Your task to perform on an android device: Is it going to rain this weekend? Image 0: 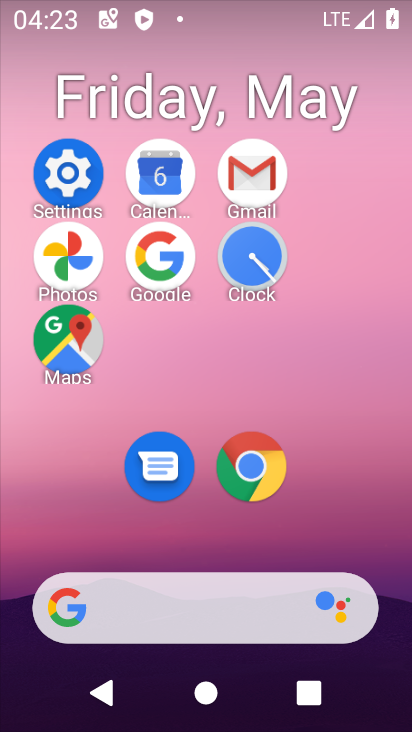
Step 0: click (143, 266)
Your task to perform on an android device: Is it going to rain this weekend? Image 1: 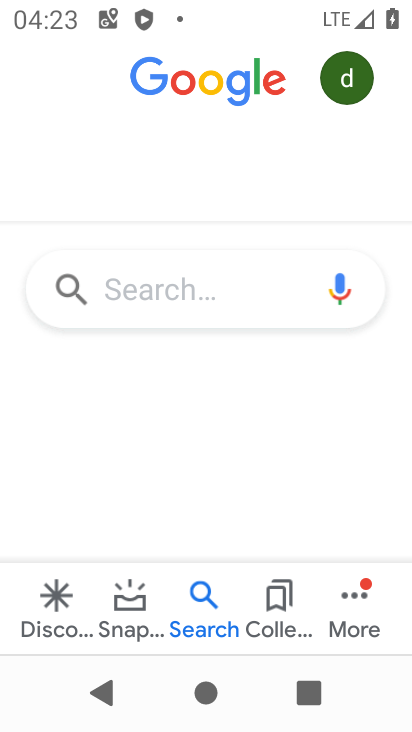
Step 1: click (170, 281)
Your task to perform on an android device: Is it going to rain this weekend? Image 2: 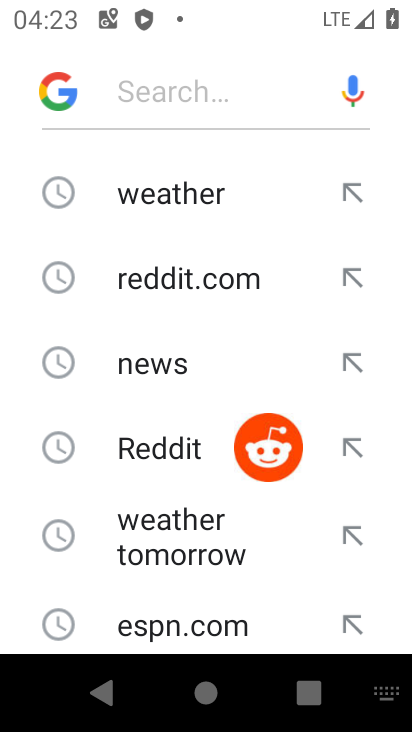
Step 2: click (152, 172)
Your task to perform on an android device: Is it going to rain this weekend? Image 3: 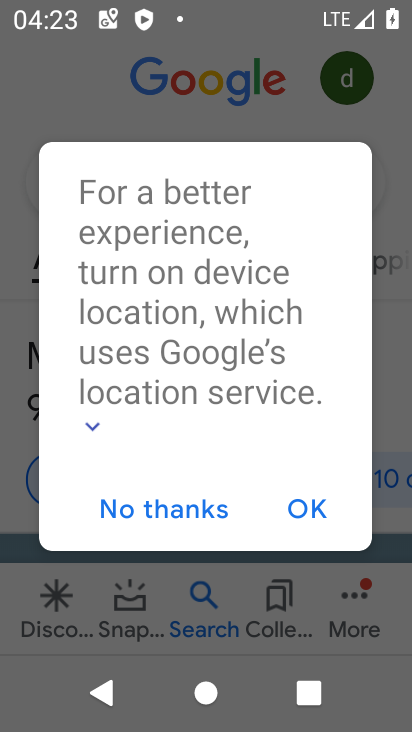
Step 3: click (273, 482)
Your task to perform on an android device: Is it going to rain this weekend? Image 4: 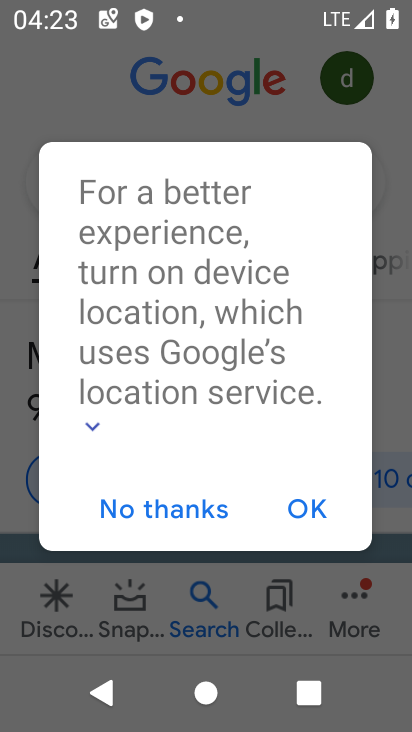
Step 4: click (297, 504)
Your task to perform on an android device: Is it going to rain this weekend? Image 5: 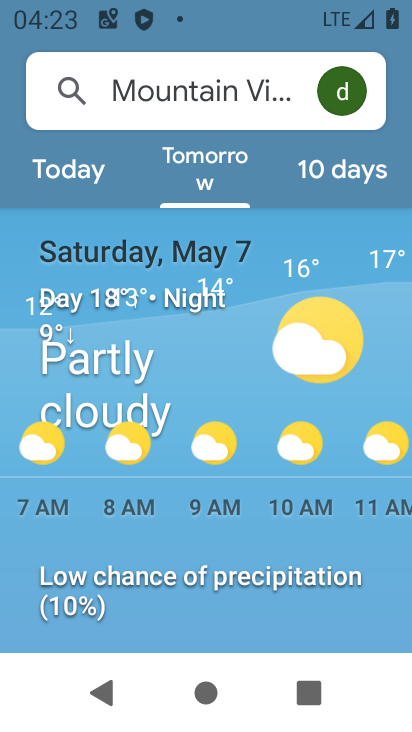
Step 5: click (302, 148)
Your task to perform on an android device: Is it going to rain this weekend? Image 6: 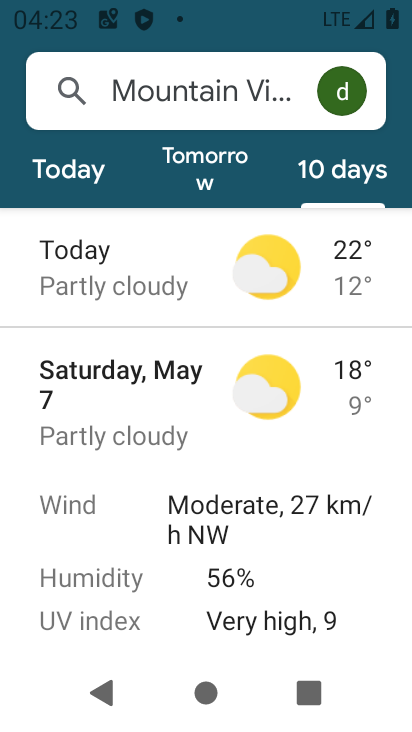
Step 6: click (170, 364)
Your task to perform on an android device: Is it going to rain this weekend? Image 7: 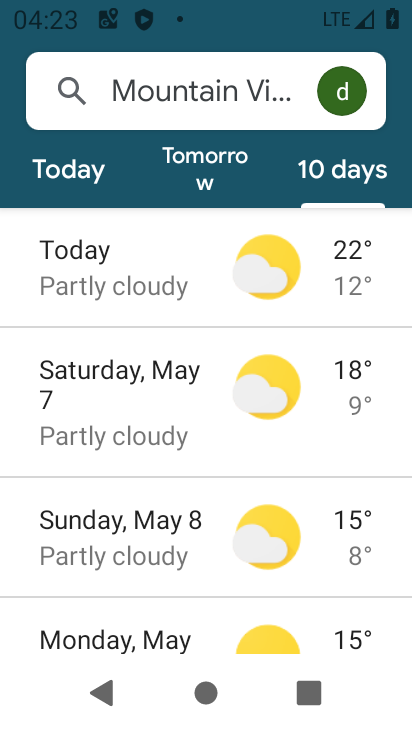
Step 7: task complete